Your task to perform on an android device: What's the weather? Image 0: 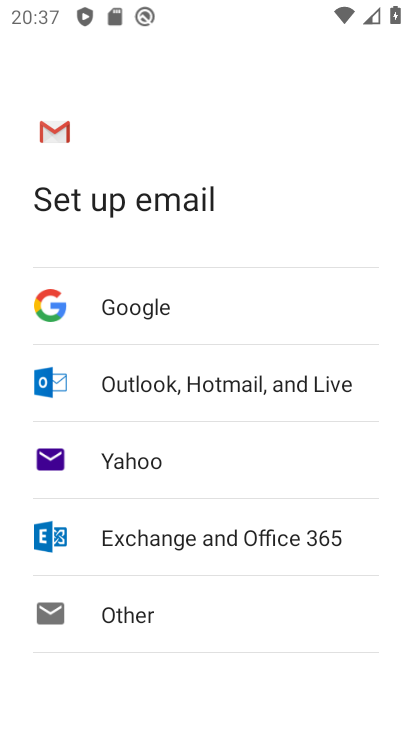
Step 0: press home button
Your task to perform on an android device: What's the weather? Image 1: 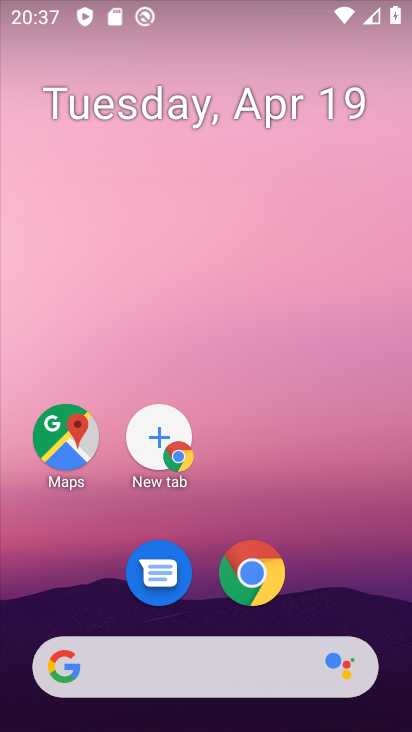
Step 1: click (170, 105)
Your task to perform on an android device: What's the weather? Image 2: 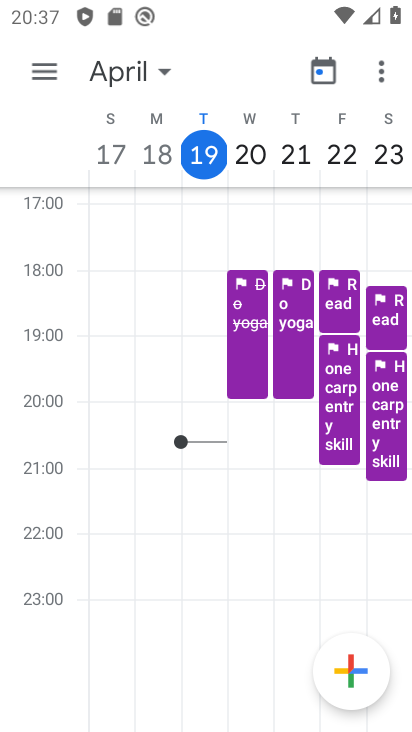
Step 2: press home button
Your task to perform on an android device: What's the weather? Image 3: 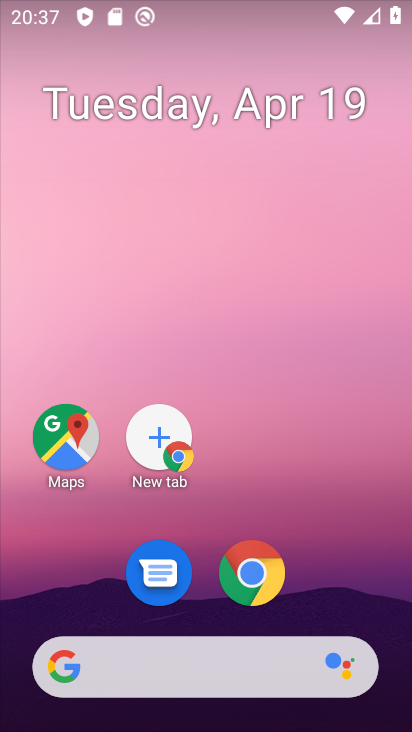
Step 3: drag from (211, 276) to (408, 257)
Your task to perform on an android device: What's the weather? Image 4: 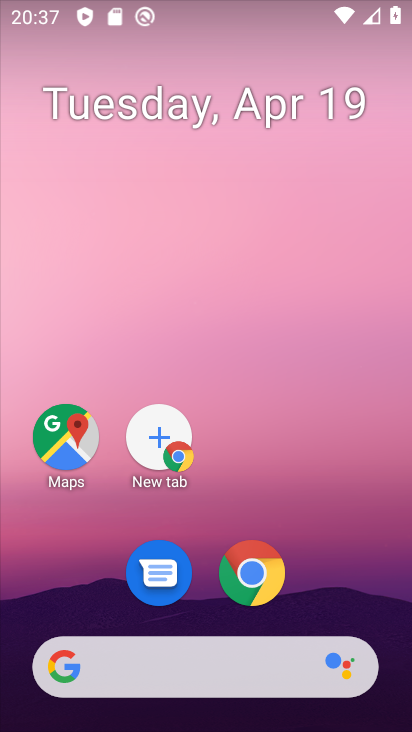
Step 4: drag from (14, 265) to (396, 243)
Your task to perform on an android device: What's the weather? Image 5: 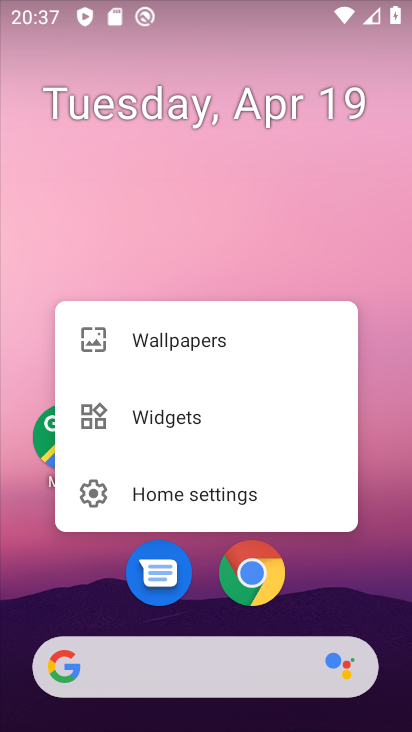
Step 5: click (261, 203)
Your task to perform on an android device: What's the weather? Image 6: 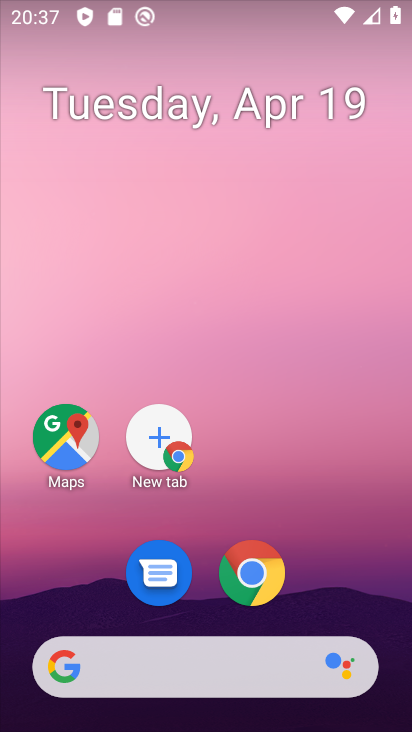
Step 6: drag from (0, 237) to (398, 184)
Your task to perform on an android device: What's the weather? Image 7: 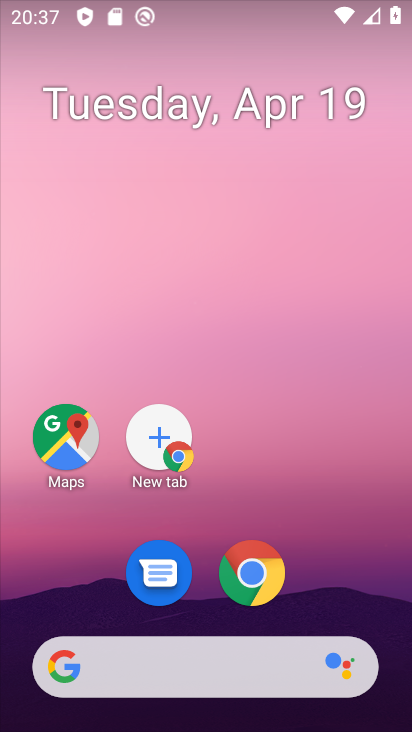
Step 7: click (344, 219)
Your task to perform on an android device: What's the weather? Image 8: 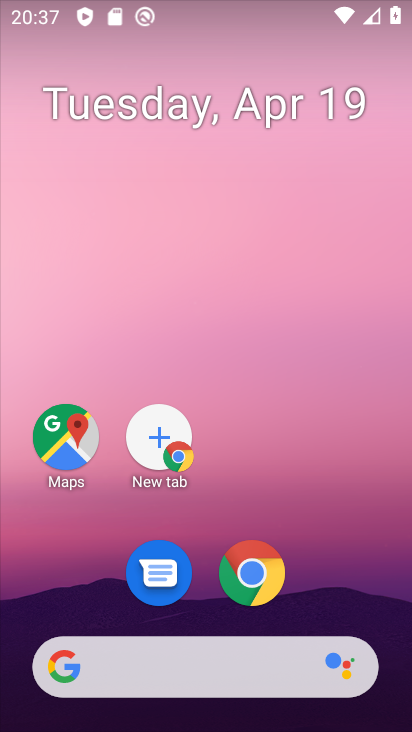
Step 8: task complete